Your task to perform on an android device: find snoozed emails in the gmail app Image 0: 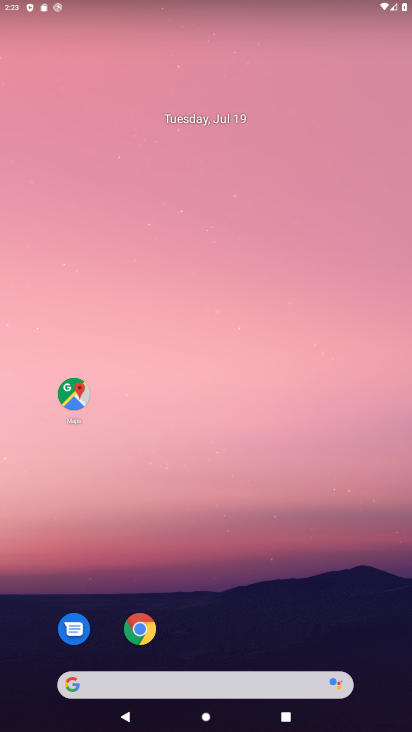
Step 0: drag from (318, 643) to (251, 102)
Your task to perform on an android device: find snoozed emails in the gmail app Image 1: 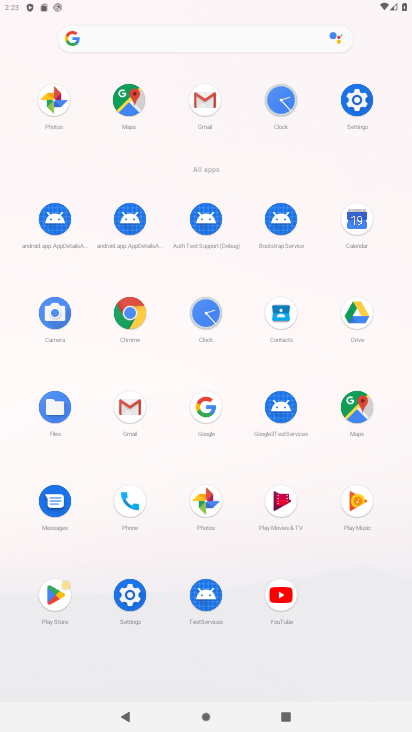
Step 1: click (125, 399)
Your task to perform on an android device: find snoozed emails in the gmail app Image 2: 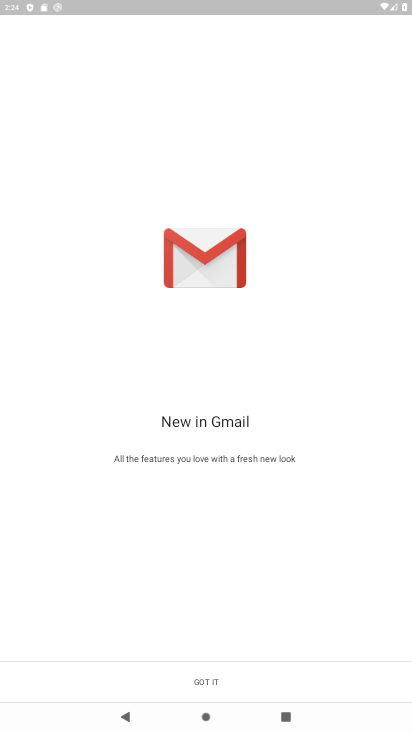
Step 2: click (214, 676)
Your task to perform on an android device: find snoozed emails in the gmail app Image 3: 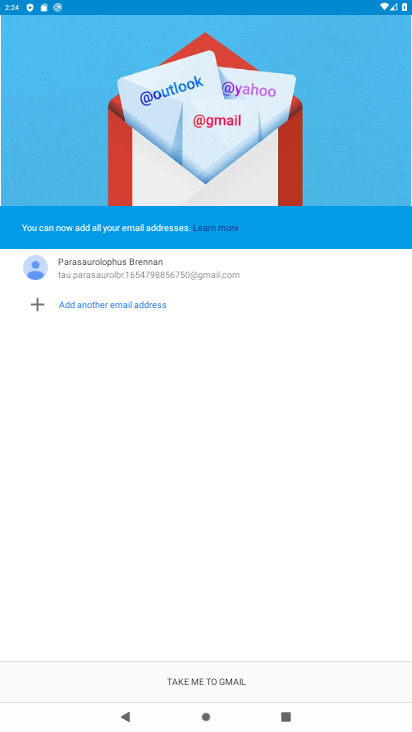
Step 3: click (215, 676)
Your task to perform on an android device: find snoozed emails in the gmail app Image 4: 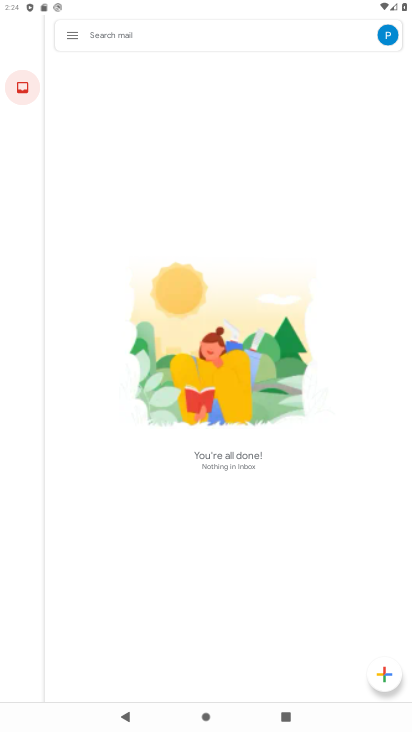
Step 4: click (77, 45)
Your task to perform on an android device: find snoozed emails in the gmail app Image 5: 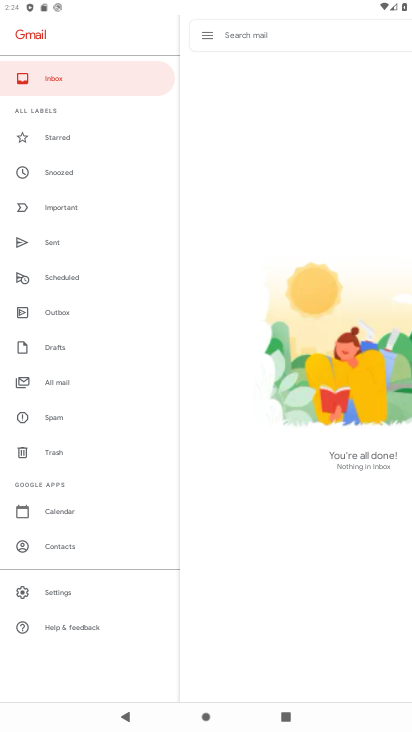
Step 5: click (60, 176)
Your task to perform on an android device: find snoozed emails in the gmail app Image 6: 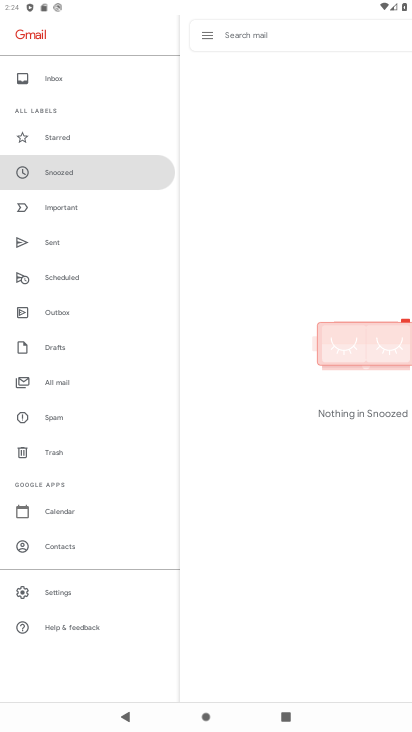
Step 6: task complete